Your task to perform on an android device: Go to wifi settings Image 0: 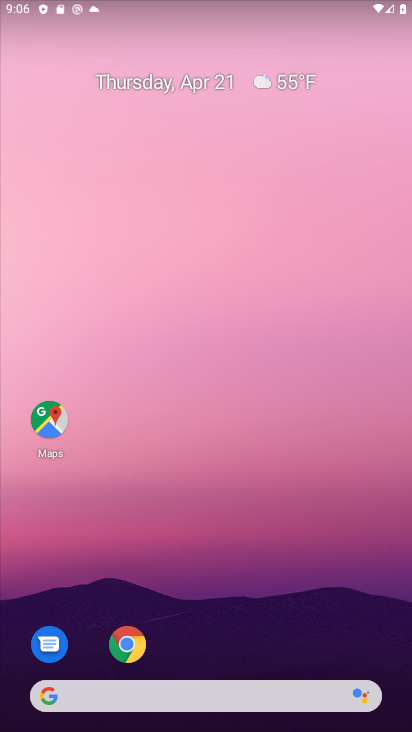
Step 0: drag from (281, 418) to (328, 33)
Your task to perform on an android device: Go to wifi settings Image 1: 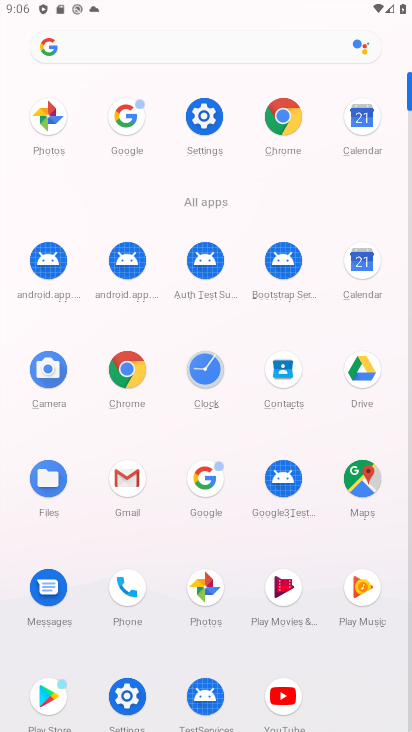
Step 1: click (213, 116)
Your task to perform on an android device: Go to wifi settings Image 2: 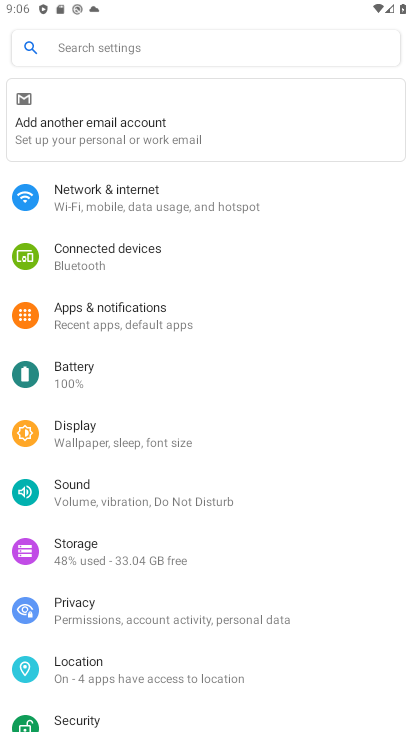
Step 2: click (89, 203)
Your task to perform on an android device: Go to wifi settings Image 3: 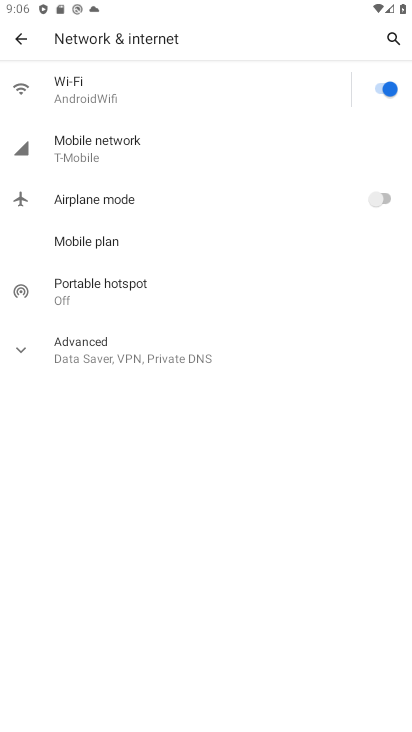
Step 3: click (138, 106)
Your task to perform on an android device: Go to wifi settings Image 4: 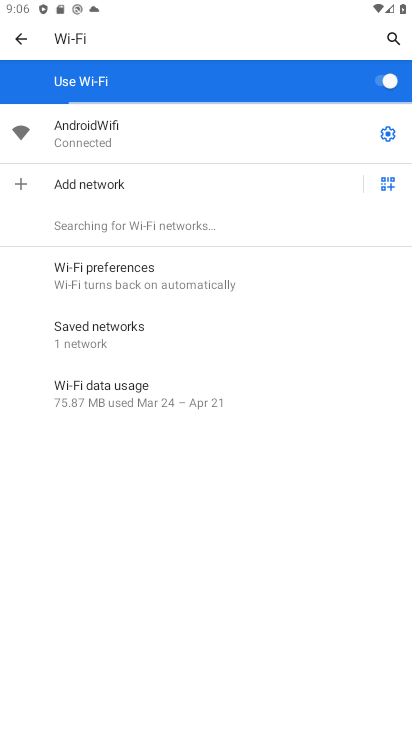
Step 4: click (390, 133)
Your task to perform on an android device: Go to wifi settings Image 5: 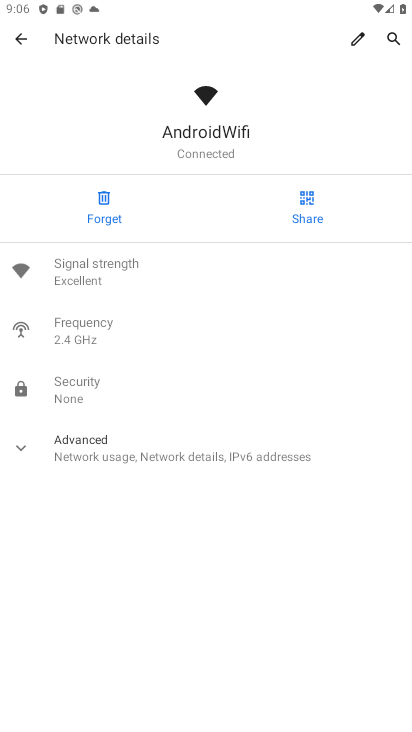
Step 5: task complete